Your task to perform on an android device: When is my next meeting? Image 0: 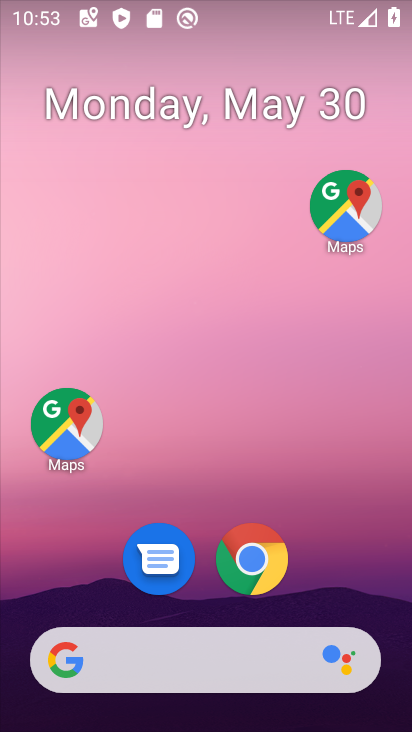
Step 0: drag from (351, 514) to (261, 6)
Your task to perform on an android device: When is my next meeting? Image 1: 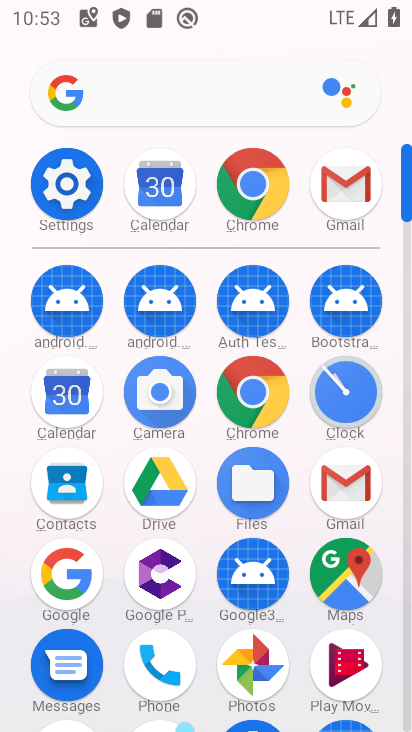
Step 1: click (58, 400)
Your task to perform on an android device: When is my next meeting? Image 2: 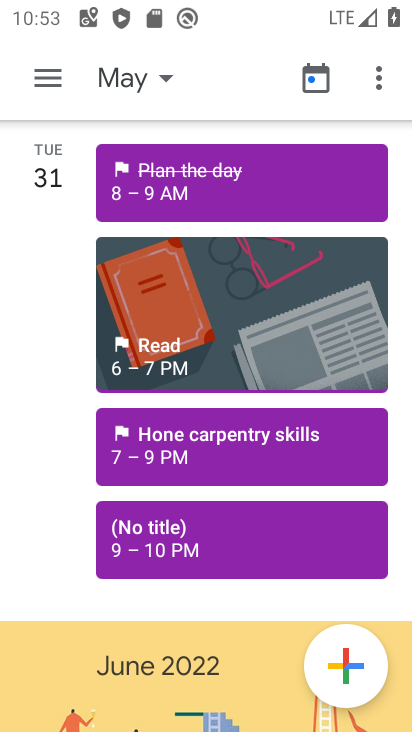
Step 2: click (146, 86)
Your task to perform on an android device: When is my next meeting? Image 3: 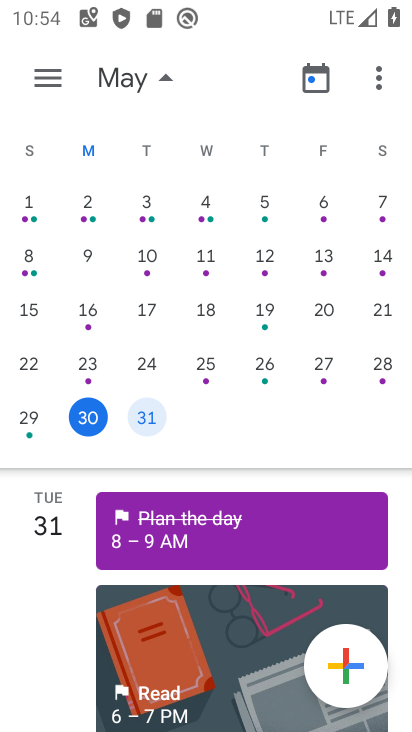
Step 3: click (61, 70)
Your task to perform on an android device: When is my next meeting? Image 4: 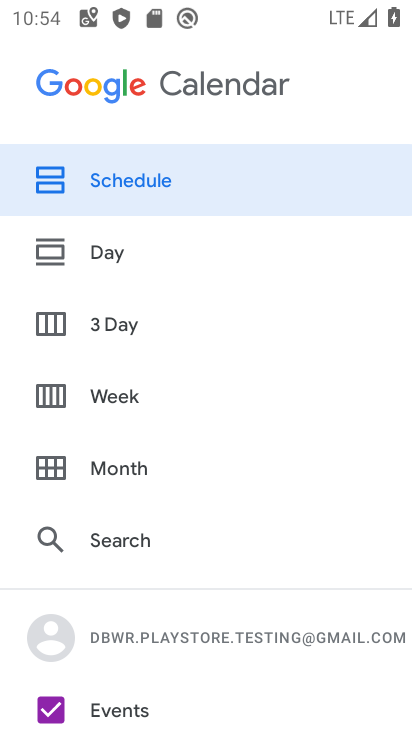
Step 4: click (93, 317)
Your task to perform on an android device: When is my next meeting? Image 5: 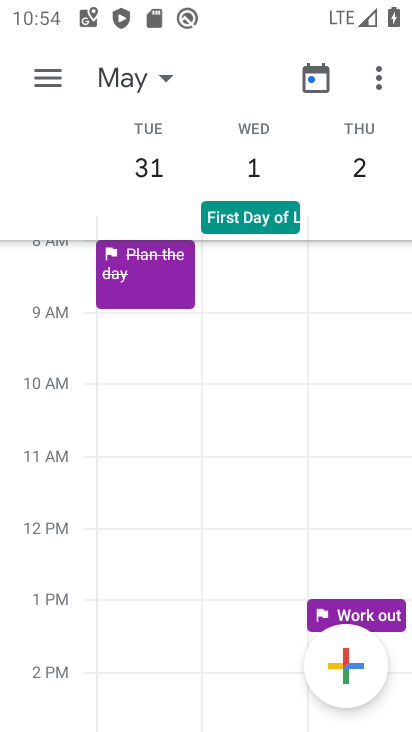
Step 5: task complete